Your task to perform on an android device: find snoozed emails in the gmail app Image 0: 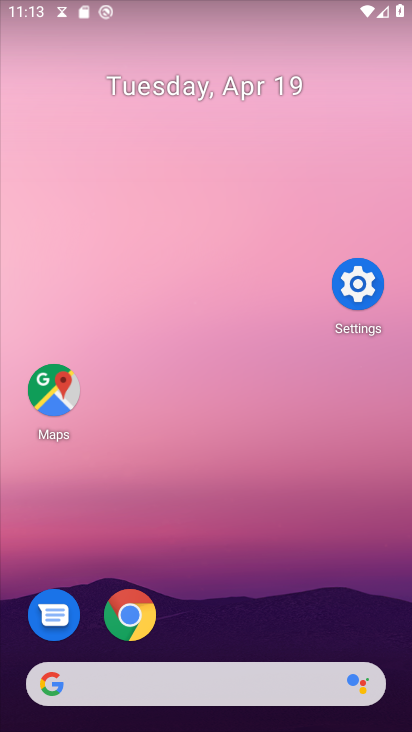
Step 0: drag from (180, 629) to (181, 122)
Your task to perform on an android device: find snoozed emails in the gmail app Image 1: 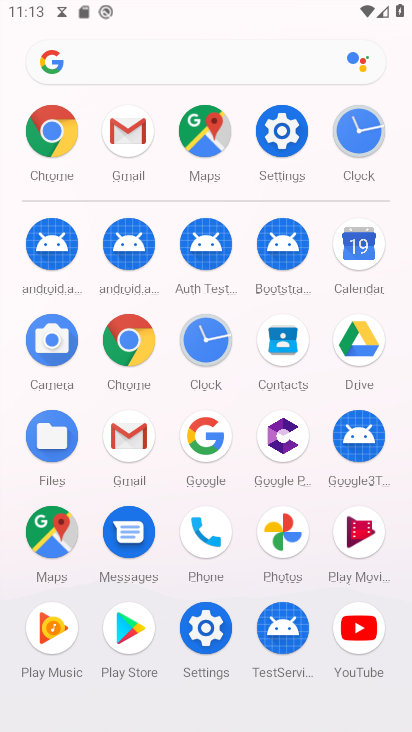
Step 1: click (132, 444)
Your task to perform on an android device: find snoozed emails in the gmail app Image 2: 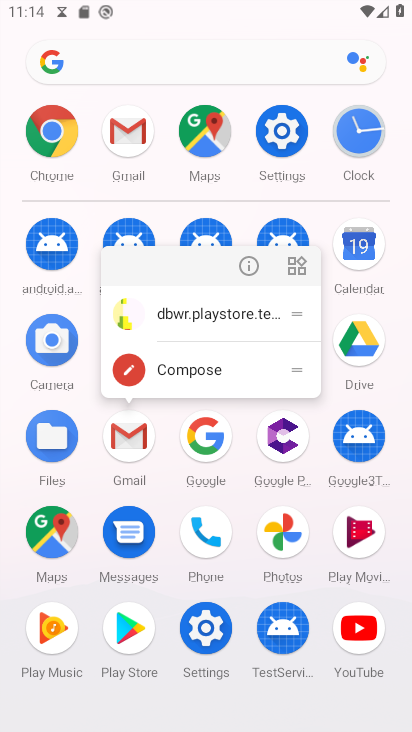
Step 2: click (247, 272)
Your task to perform on an android device: find snoozed emails in the gmail app Image 3: 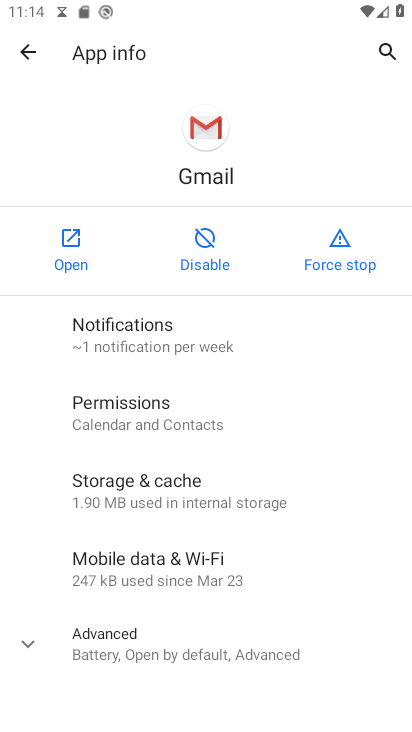
Step 3: click (86, 265)
Your task to perform on an android device: find snoozed emails in the gmail app Image 4: 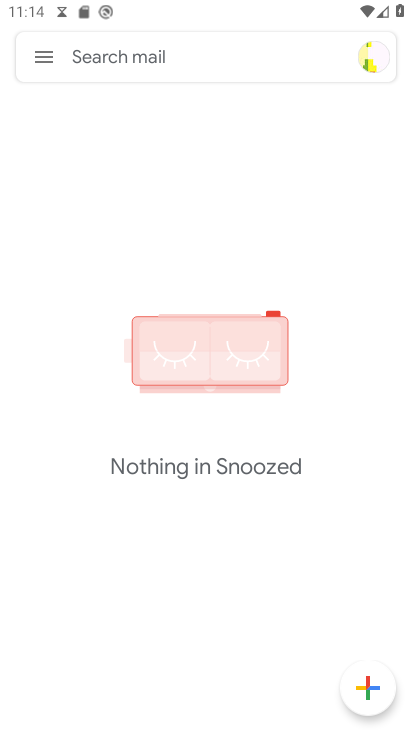
Step 4: click (37, 57)
Your task to perform on an android device: find snoozed emails in the gmail app Image 5: 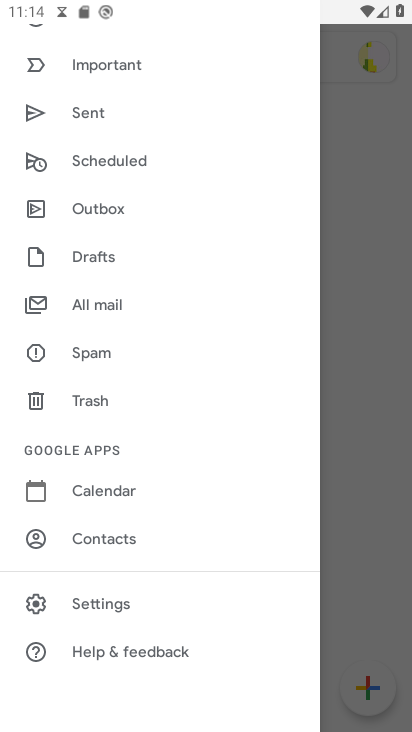
Step 5: drag from (117, 112) to (175, 425)
Your task to perform on an android device: find snoozed emails in the gmail app Image 6: 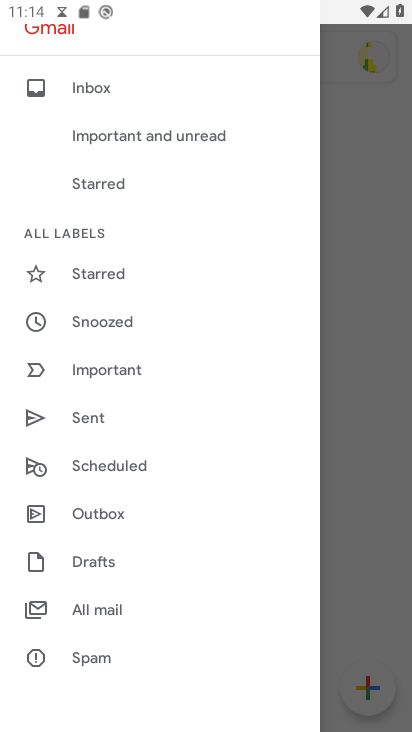
Step 6: click (131, 328)
Your task to perform on an android device: find snoozed emails in the gmail app Image 7: 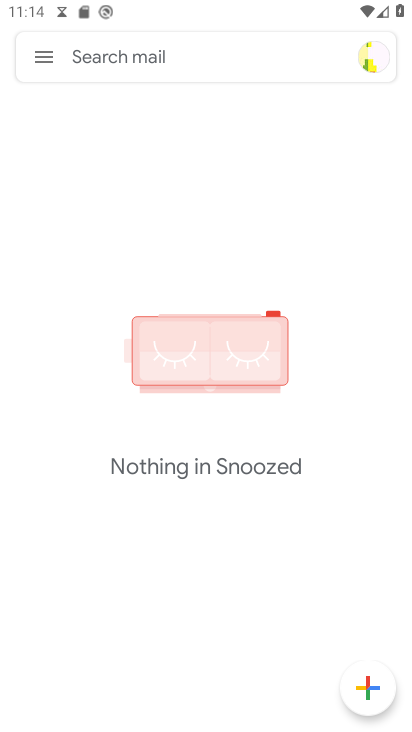
Step 7: task complete